Your task to perform on an android device: Open the map Image 0: 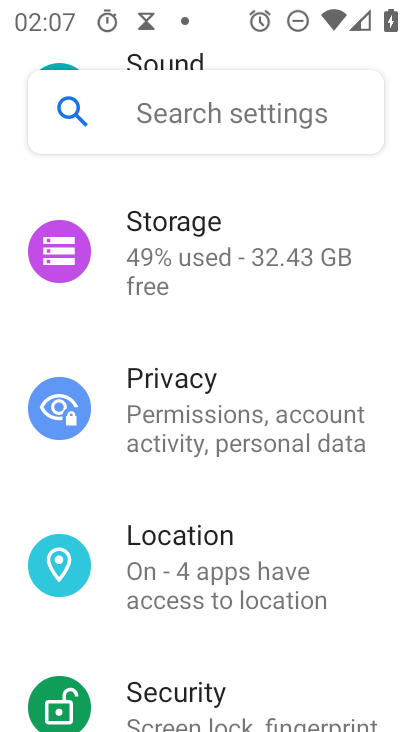
Step 0: press home button
Your task to perform on an android device: Open the map Image 1: 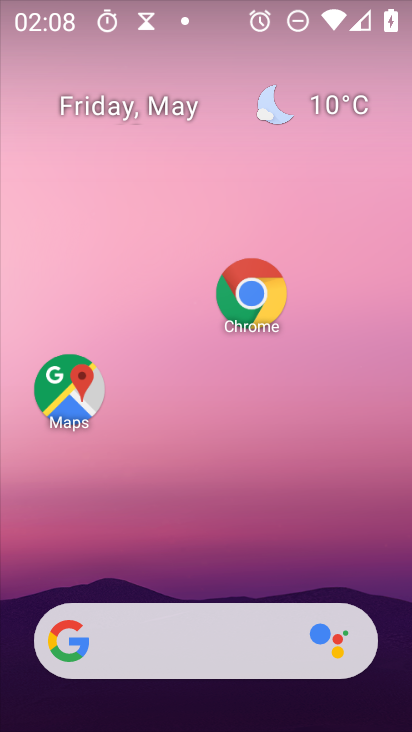
Step 1: click (73, 411)
Your task to perform on an android device: Open the map Image 2: 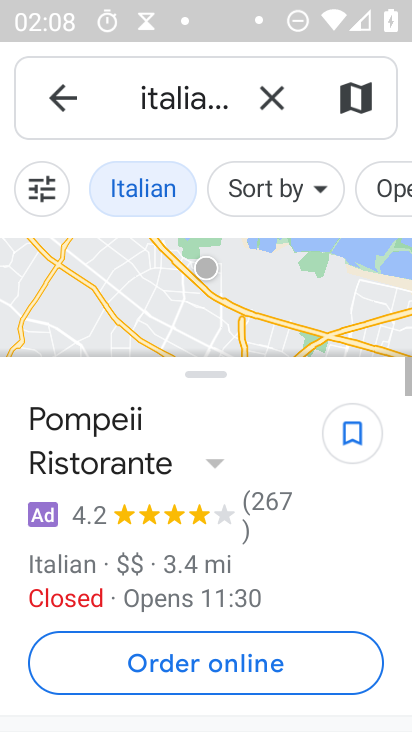
Step 2: click (75, 106)
Your task to perform on an android device: Open the map Image 3: 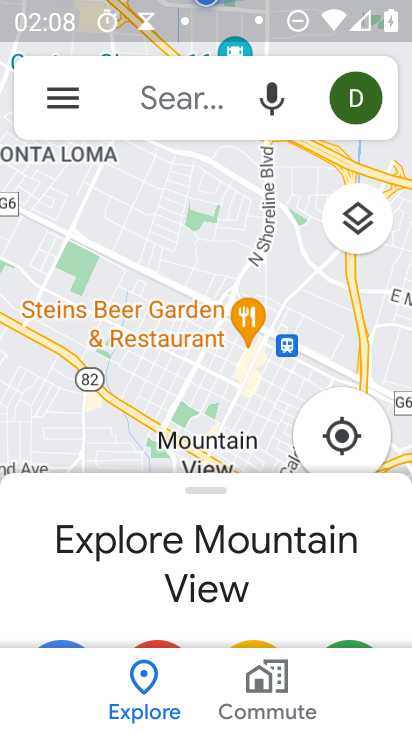
Step 3: task complete